Your task to perform on an android device: visit the assistant section in the google photos Image 0: 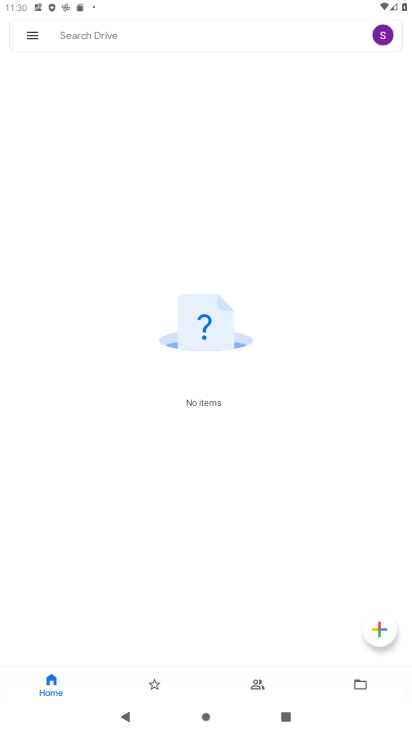
Step 0: click (226, 646)
Your task to perform on an android device: visit the assistant section in the google photos Image 1: 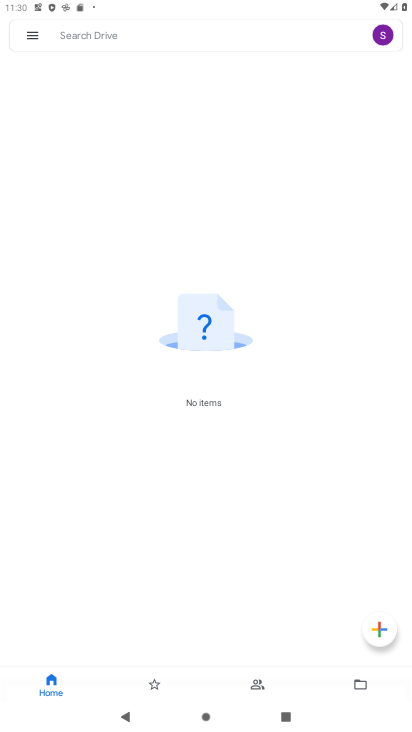
Step 1: click (251, 684)
Your task to perform on an android device: visit the assistant section in the google photos Image 2: 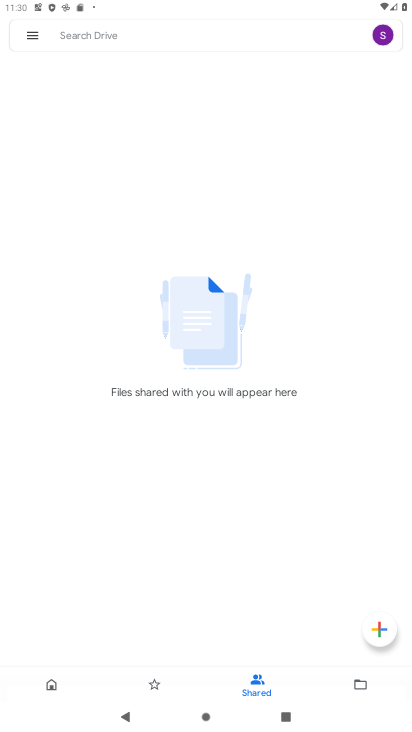
Step 2: click (32, 42)
Your task to perform on an android device: visit the assistant section in the google photos Image 3: 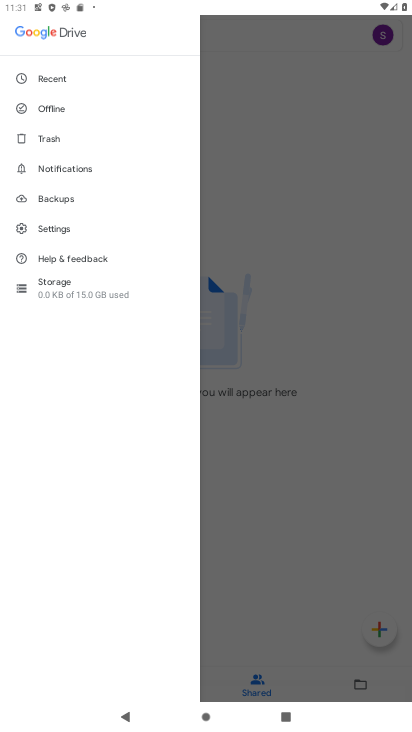
Step 3: click (258, 128)
Your task to perform on an android device: visit the assistant section in the google photos Image 4: 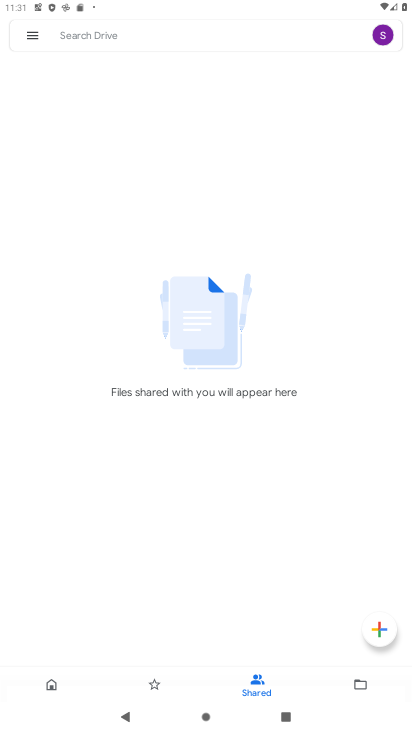
Step 4: click (387, 34)
Your task to perform on an android device: visit the assistant section in the google photos Image 5: 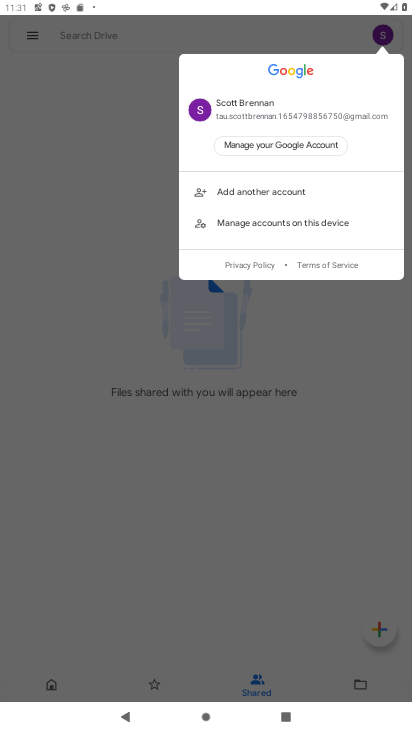
Step 5: click (305, 363)
Your task to perform on an android device: visit the assistant section in the google photos Image 6: 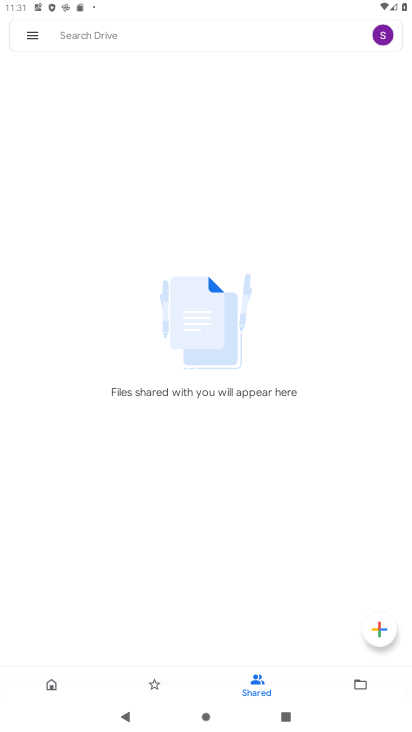
Step 6: press home button
Your task to perform on an android device: visit the assistant section in the google photos Image 7: 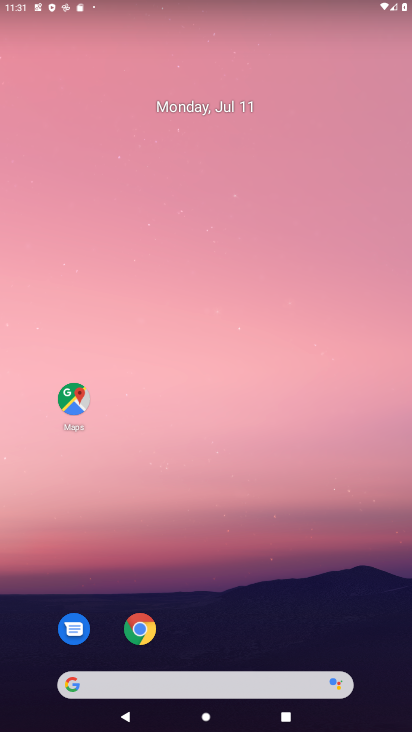
Step 7: drag from (219, 622) to (228, 168)
Your task to perform on an android device: visit the assistant section in the google photos Image 8: 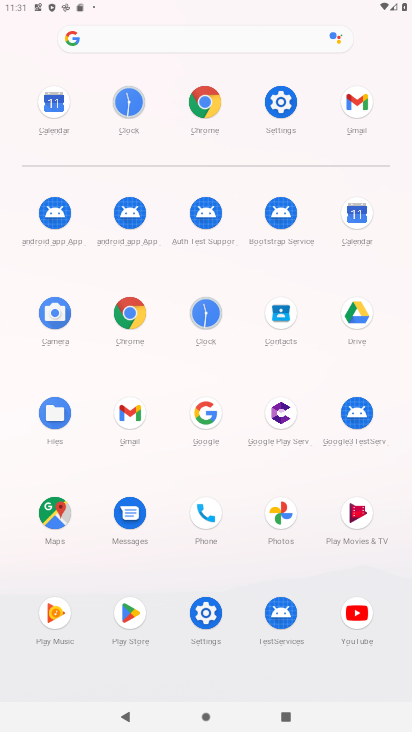
Step 8: click (279, 526)
Your task to perform on an android device: visit the assistant section in the google photos Image 9: 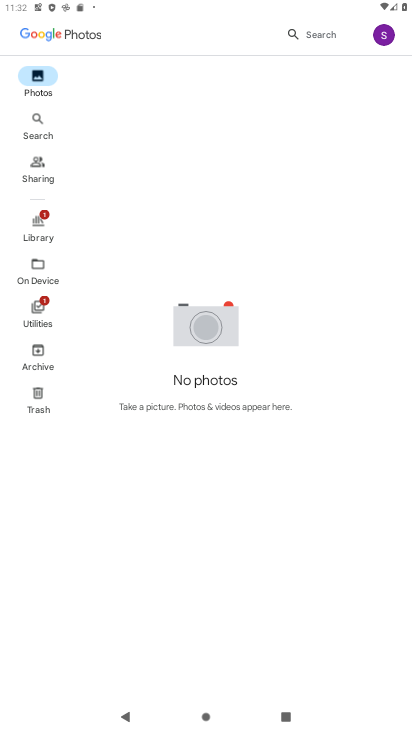
Step 9: task complete